Your task to perform on an android device: turn on notifications settings in the gmail app Image 0: 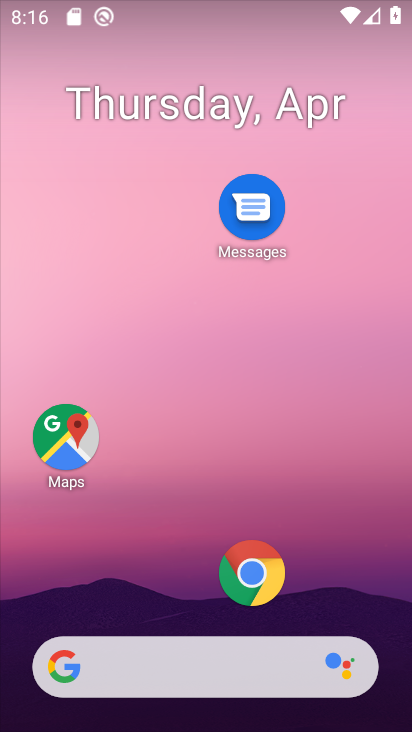
Step 0: drag from (175, 605) to (180, 194)
Your task to perform on an android device: turn on notifications settings in the gmail app Image 1: 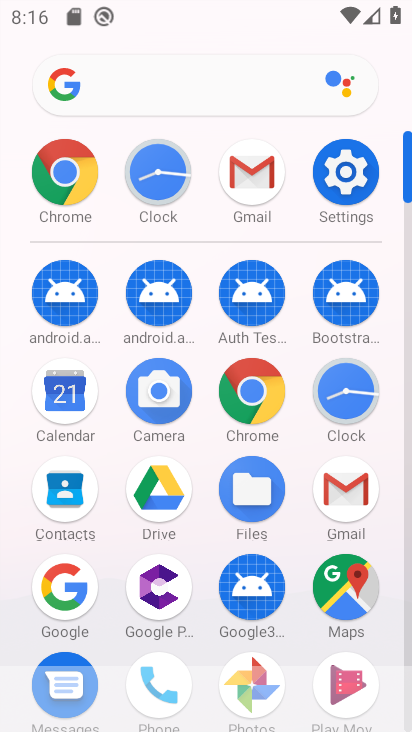
Step 1: click (342, 483)
Your task to perform on an android device: turn on notifications settings in the gmail app Image 2: 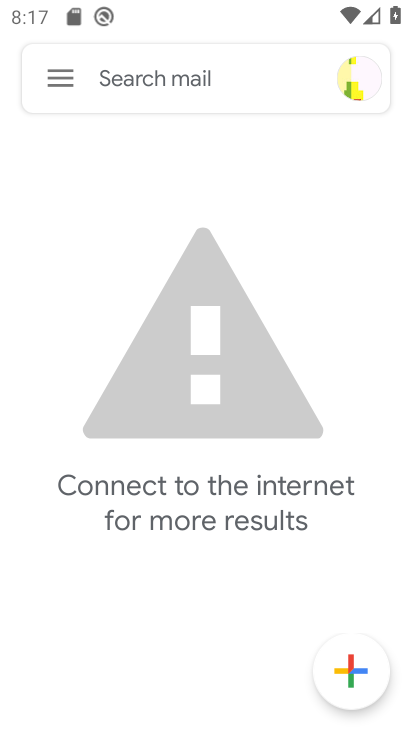
Step 2: click (60, 74)
Your task to perform on an android device: turn on notifications settings in the gmail app Image 3: 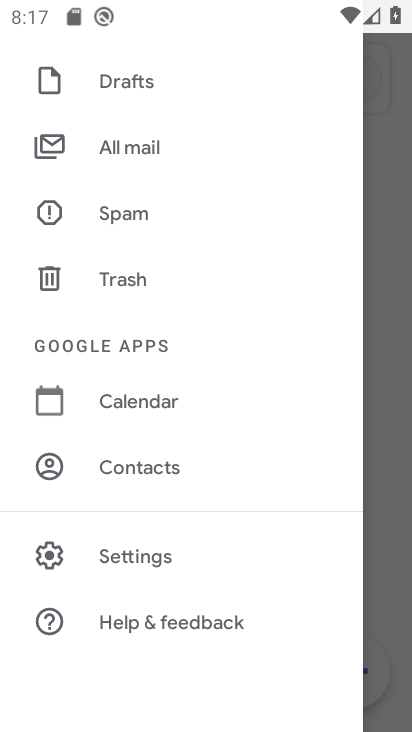
Step 3: click (82, 554)
Your task to perform on an android device: turn on notifications settings in the gmail app Image 4: 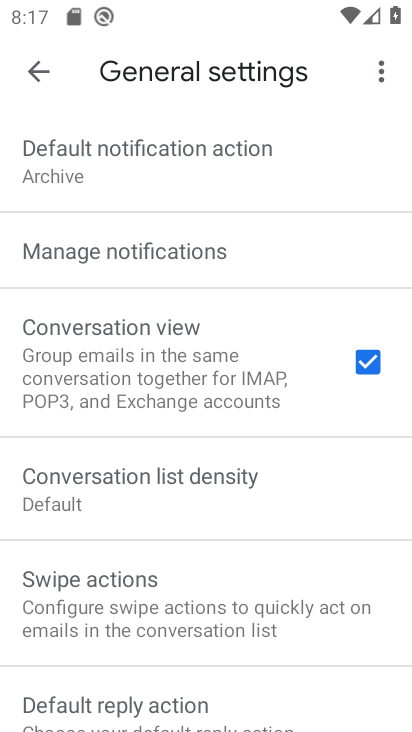
Step 4: click (152, 261)
Your task to perform on an android device: turn on notifications settings in the gmail app Image 5: 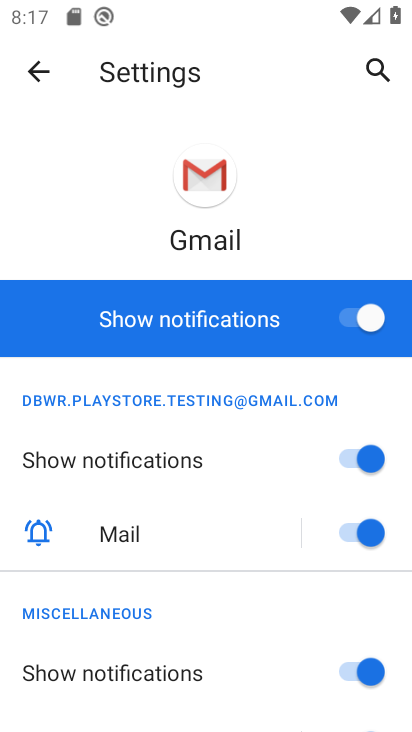
Step 5: task complete